Your task to perform on an android device: open app "Adobe Express: Graphic Design" Image 0: 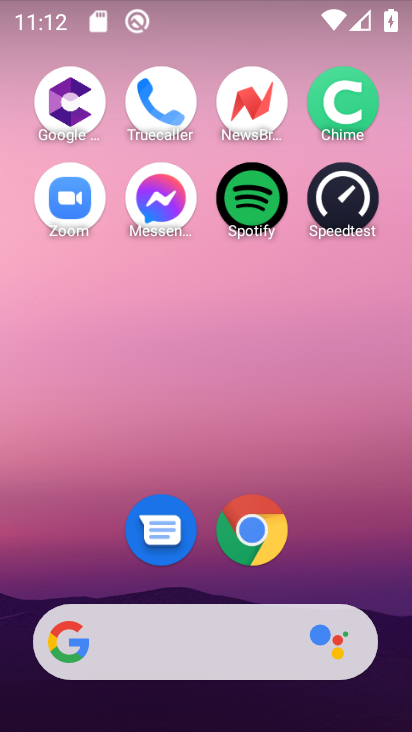
Step 0: drag from (195, 622) to (189, 19)
Your task to perform on an android device: open app "Adobe Express: Graphic Design" Image 1: 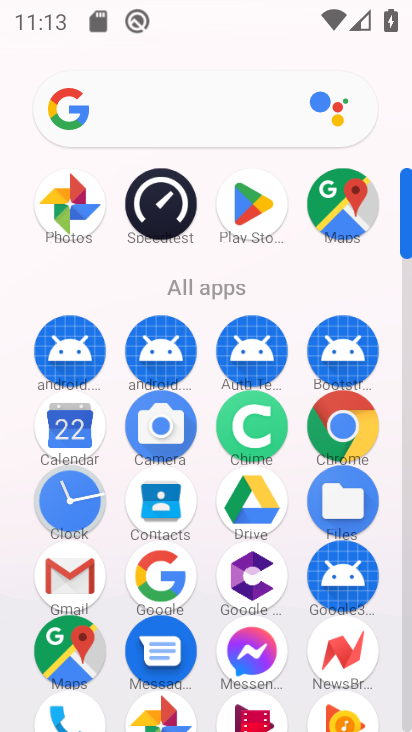
Step 1: drag from (207, 623) to (204, 265)
Your task to perform on an android device: open app "Adobe Express: Graphic Design" Image 2: 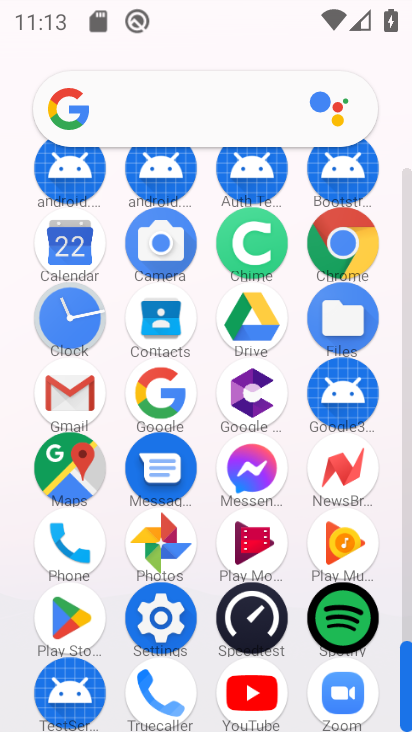
Step 2: click (76, 613)
Your task to perform on an android device: open app "Adobe Express: Graphic Design" Image 3: 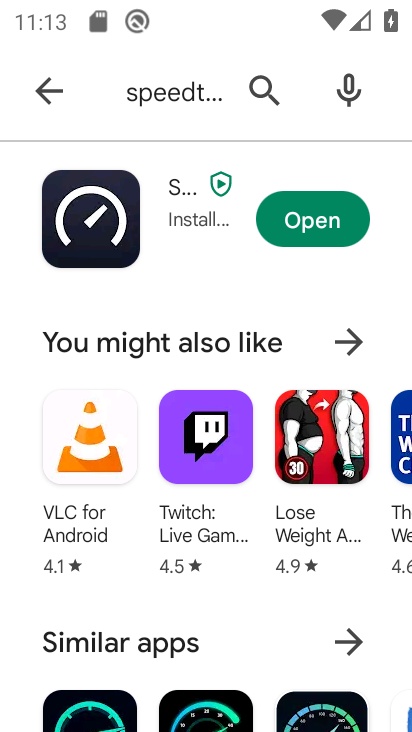
Step 3: press back button
Your task to perform on an android device: open app "Adobe Express: Graphic Design" Image 4: 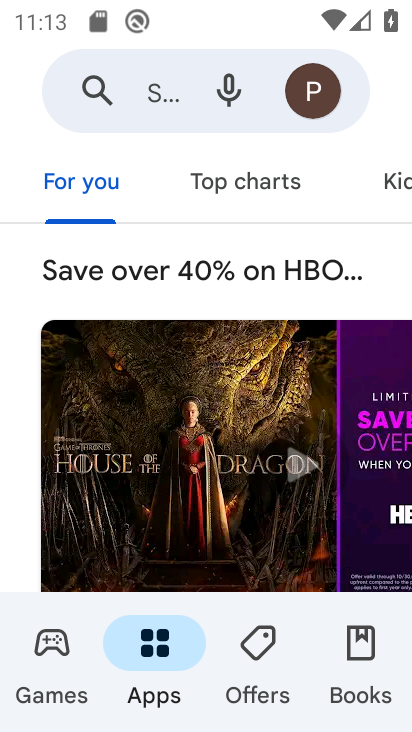
Step 4: click (171, 99)
Your task to perform on an android device: open app "Adobe Express: Graphic Design" Image 5: 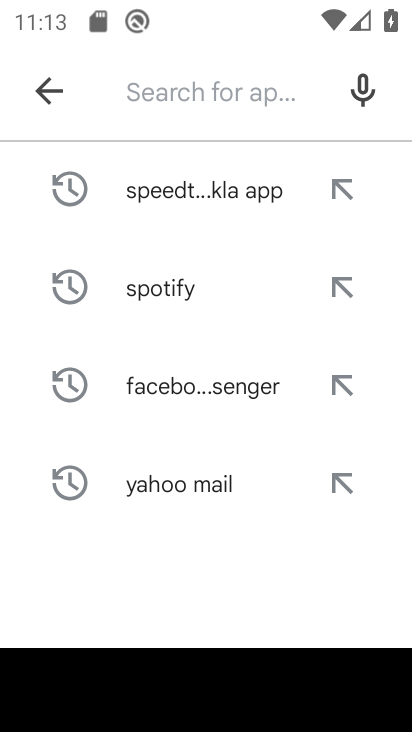
Step 5: type "Adobe Express: Graphic Design"
Your task to perform on an android device: open app "Adobe Express: Graphic Design" Image 6: 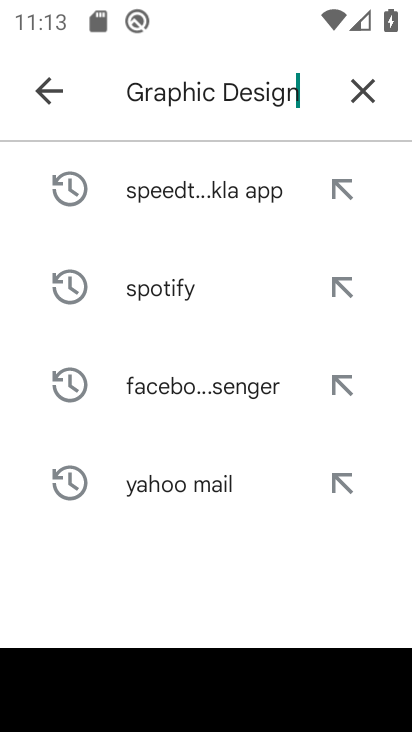
Step 6: type ""
Your task to perform on an android device: open app "Adobe Express: Graphic Design" Image 7: 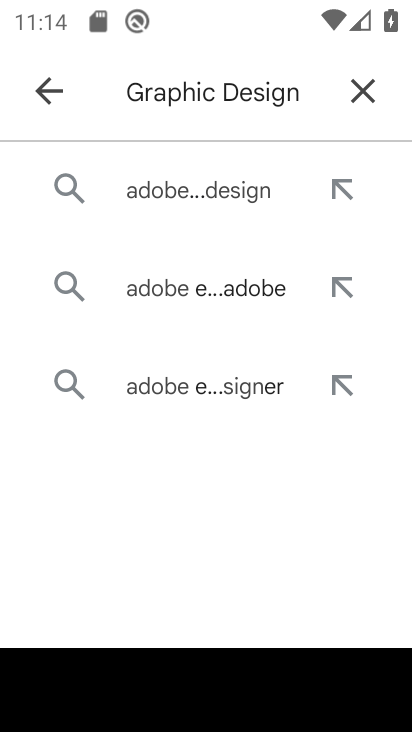
Step 7: click (262, 197)
Your task to perform on an android device: open app "Adobe Express: Graphic Design" Image 8: 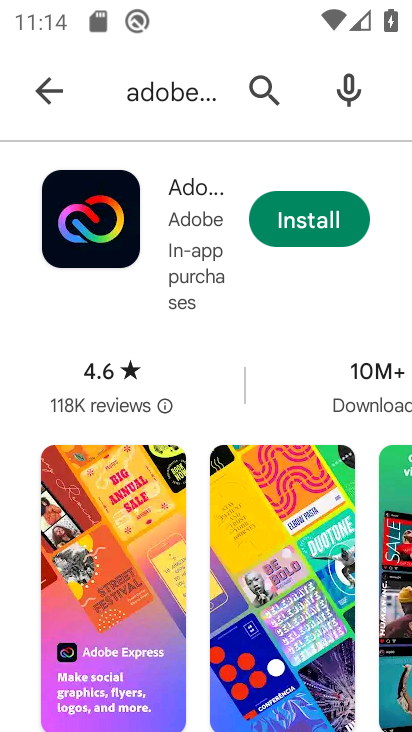
Step 8: task complete